Your task to perform on an android device: turn off wifi Image 0: 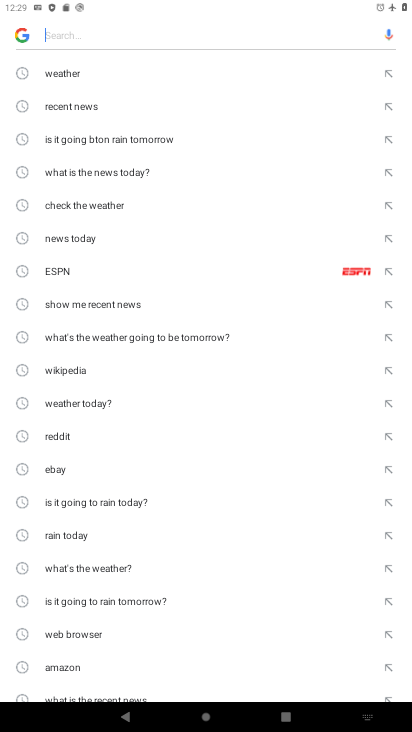
Step 0: press back button
Your task to perform on an android device: turn off wifi Image 1: 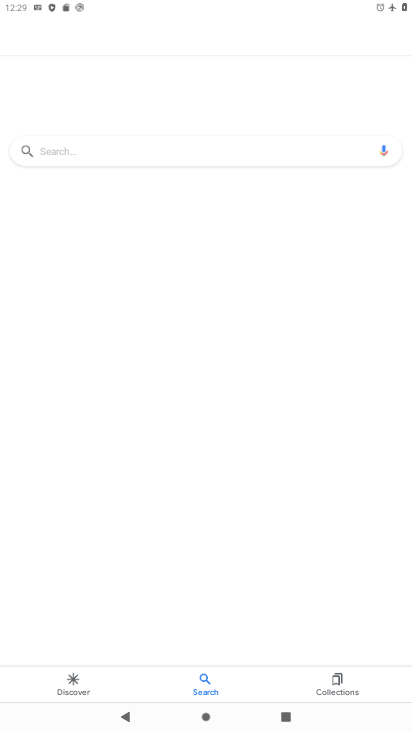
Step 1: press back button
Your task to perform on an android device: turn off wifi Image 2: 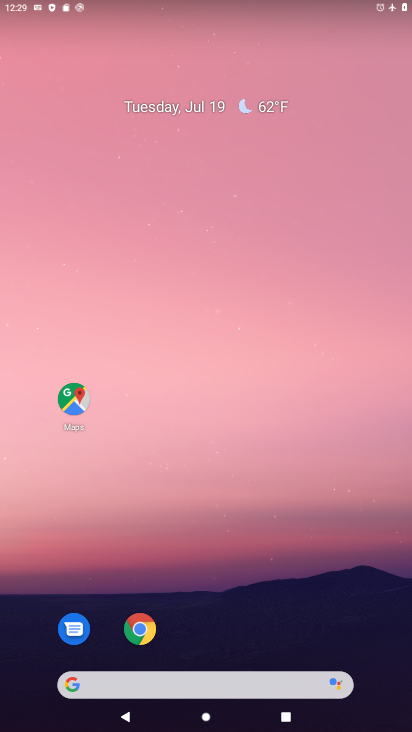
Step 2: drag from (208, 611) to (214, 44)
Your task to perform on an android device: turn off wifi Image 3: 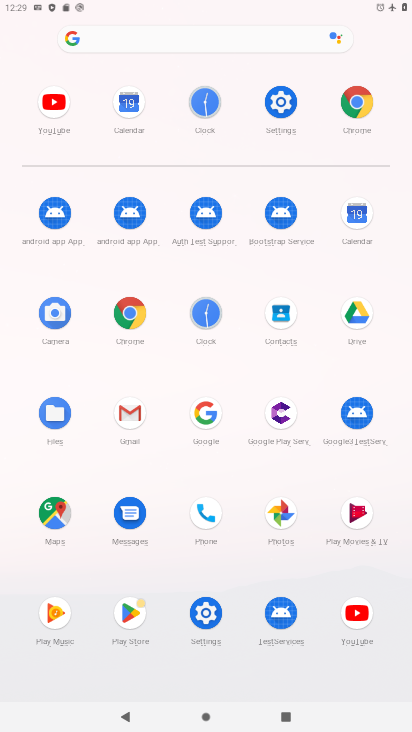
Step 3: click (220, 610)
Your task to perform on an android device: turn off wifi Image 4: 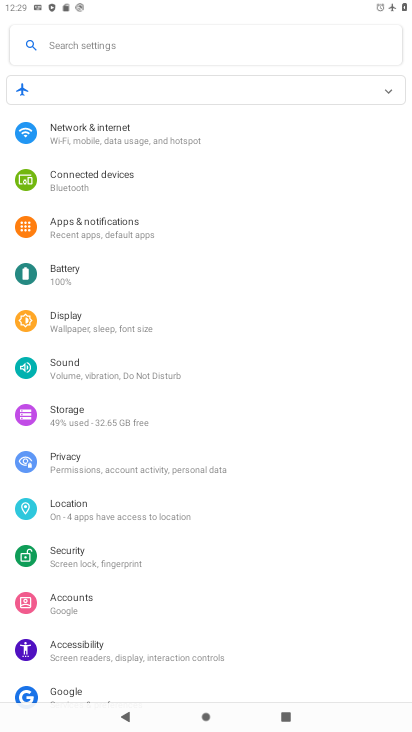
Step 4: click (169, 134)
Your task to perform on an android device: turn off wifi Image 5: 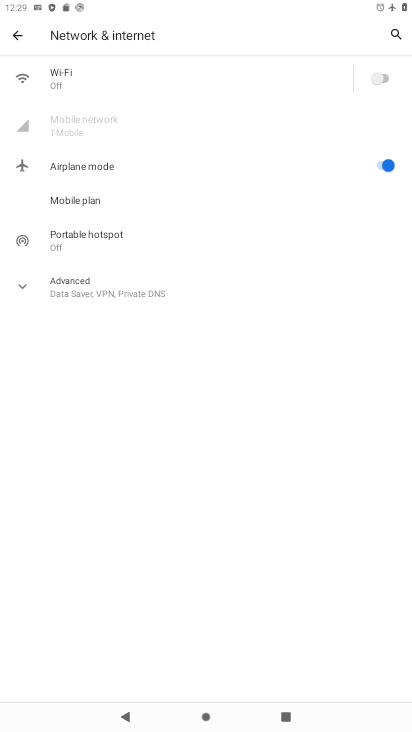
Step 5: click (174, 72)
Your task to perform on an android device: turn off wifi Image 6: 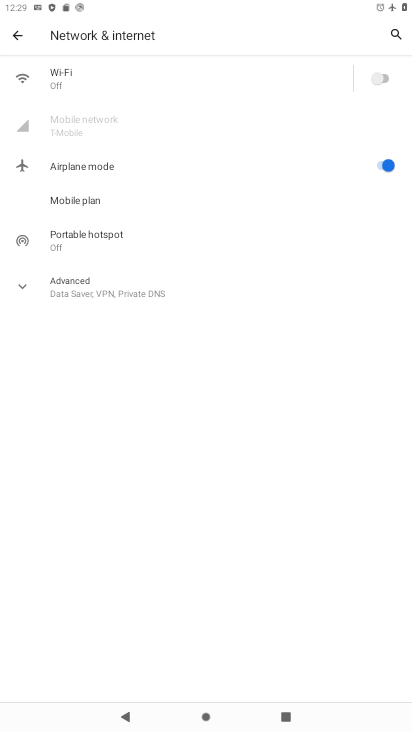
Step 6: task complete